Your task to perform on an android device: change alarm snooze length Image 0: 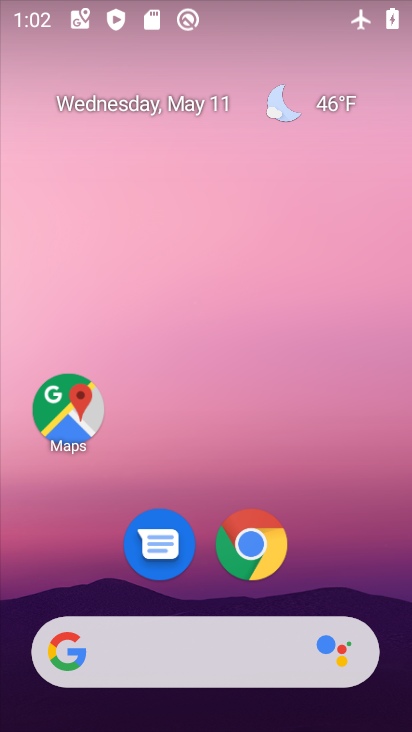
Step 0: drag from (393, 622) to (262, 11)
Your task to perform on an android device: change alarm snooze length Image 1: 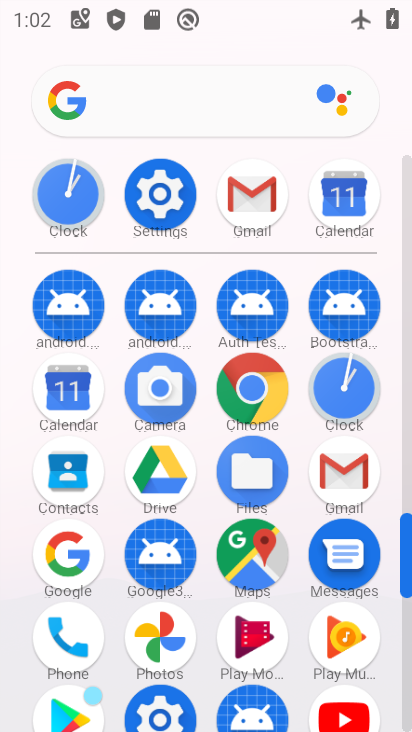
Step 1: click (405, 712)
Your task to perform on an android device: change alarm snooze length Image 2: 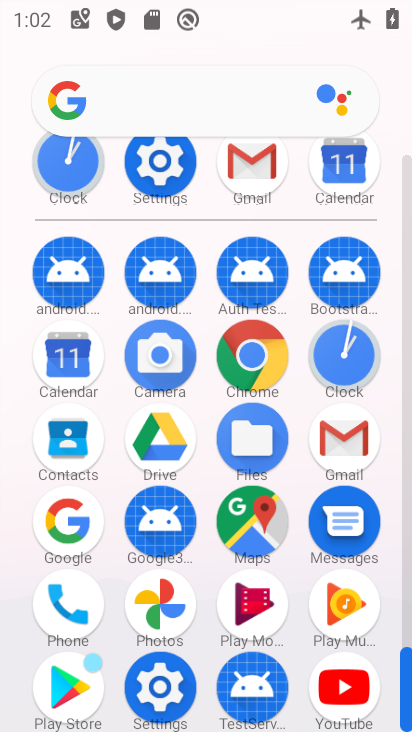
Step 2: click (343, 353)
Your task to perform on an android device: change alarm snooze length Image 3: 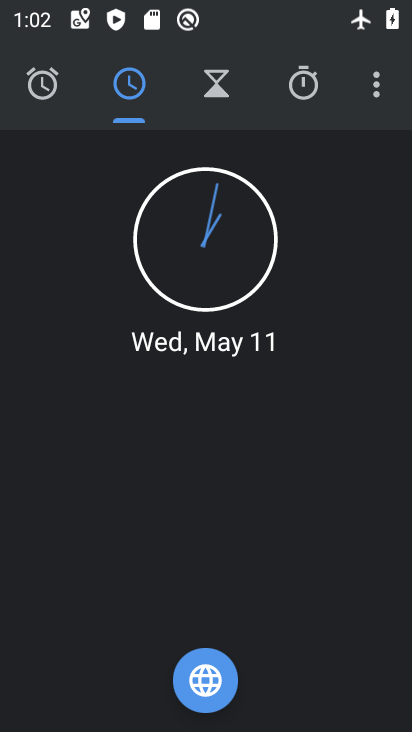
Step 3: click (371, 89)
Your task to perform on an android device: change alarm snooze length Image 4: 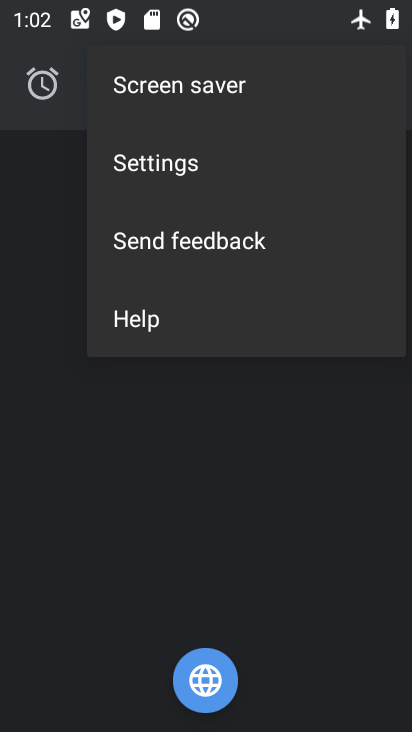
Step 4: click (125, 149)
Your task to perform on an android device: change alarm snooze length Image 5: 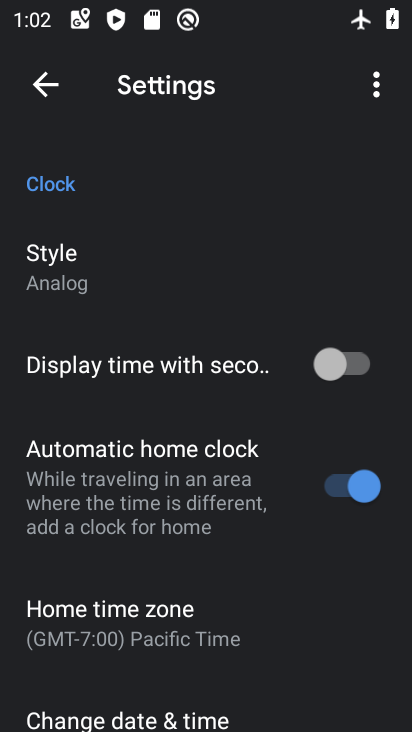
Step 5: drag from (268, 631) to (264, 107)
Your task to perform on an android device: change alarm snooze length Image 6: 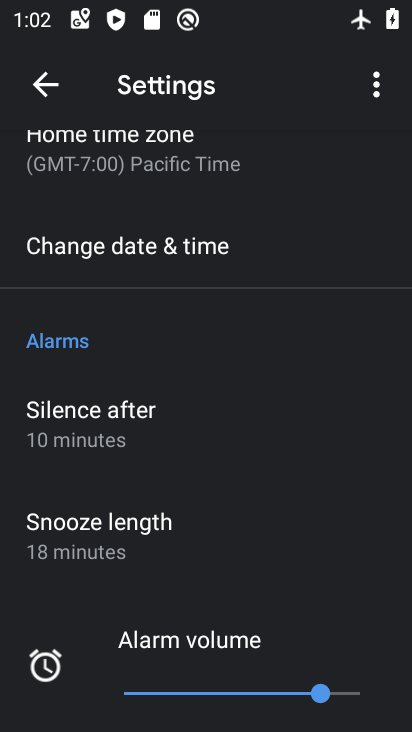
Step 6: click (104, 524)
Your task to perform on an android device: change alarm snooze length Image 7: 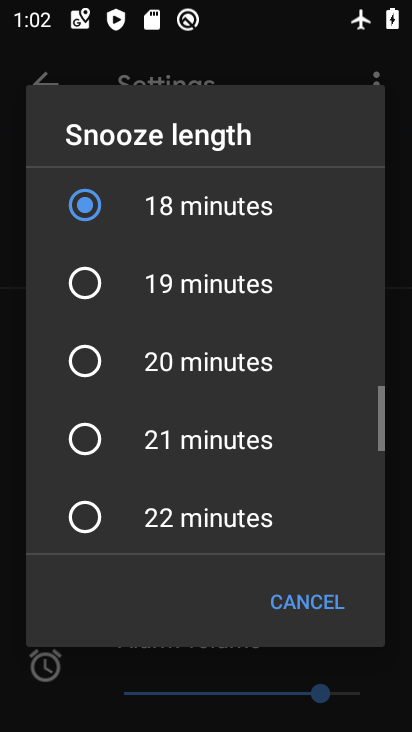
Step 7: drag from (193, 218) to (206, 574)
Your task to perform on an android device: change alarm snooze length Image 8: 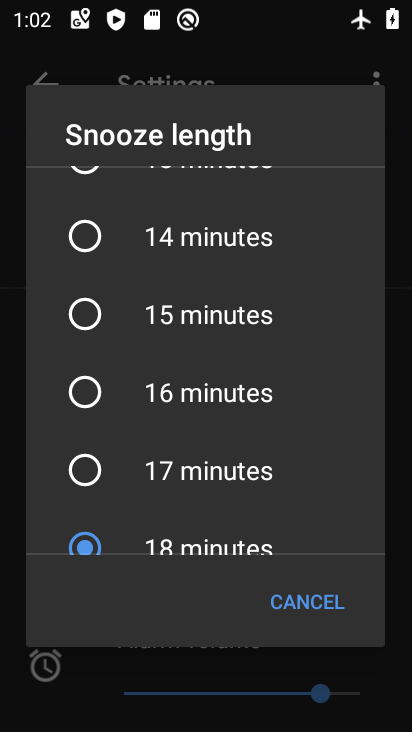
Step 8: drag from (232, 196) to (255, 428)
Your task to perform on an android device: change alarm snooze length Image 9: 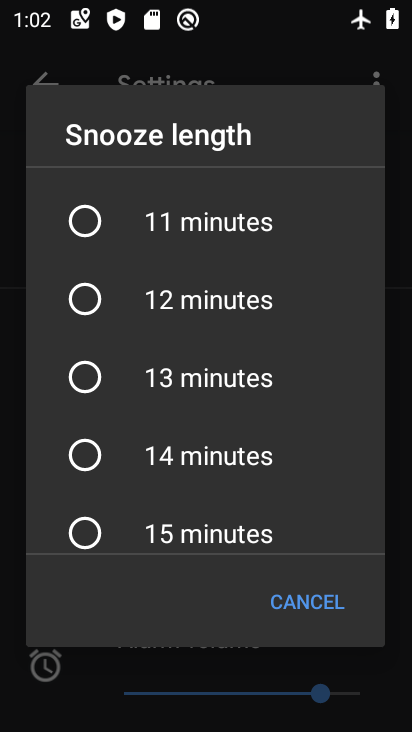
Step 9: click (79, 295)
Your task to perform on an android device: change alarm snooze length Image 10: 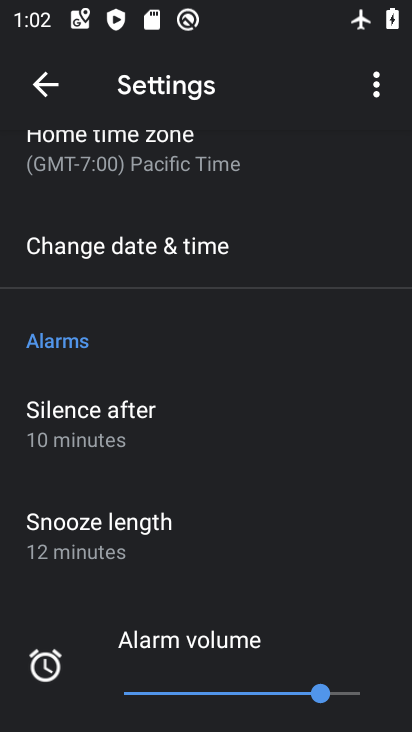
Step 10: task complete